Your task to perform on an android device: turn off notifications in google photos Image 0: 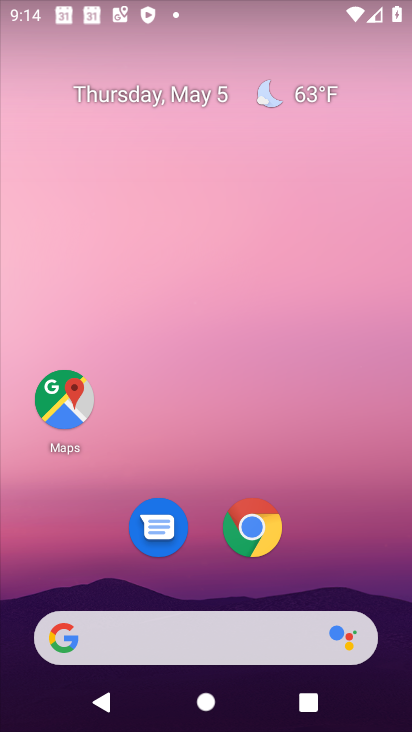
Step 0: drag from (264, 693) to (246, 35)
Your task to perform on an android device: turn off notifications in google photos Image 1: 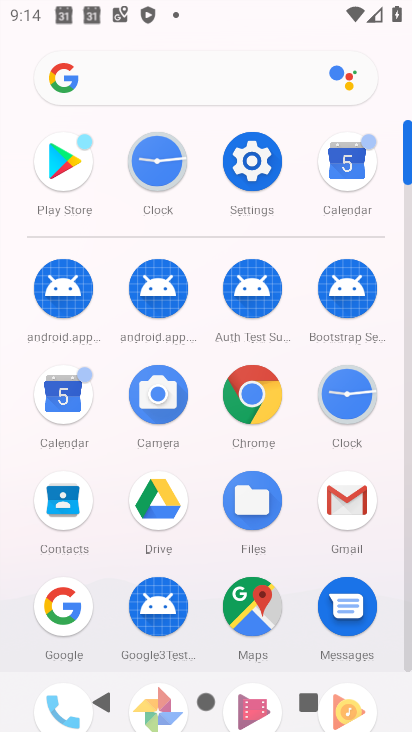
Step 1: drag from (226, 628) to (205, 100)
Your task to perform on an android device: turn off notifications in google photos Image 2: 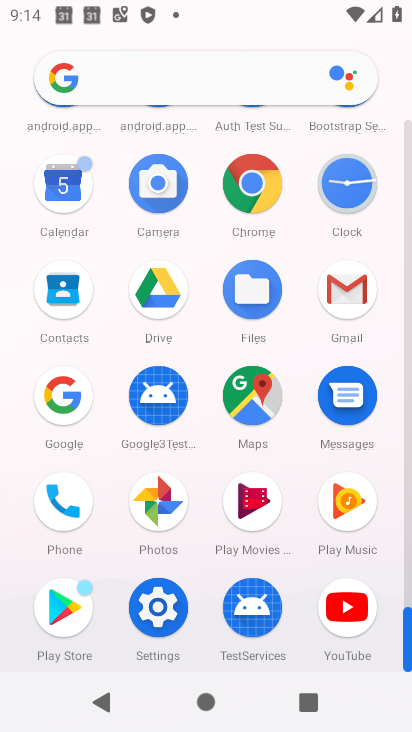
Step 2: click (159, 489)
Your task to perform on an android device: turn off notifications in google photos Image 3: 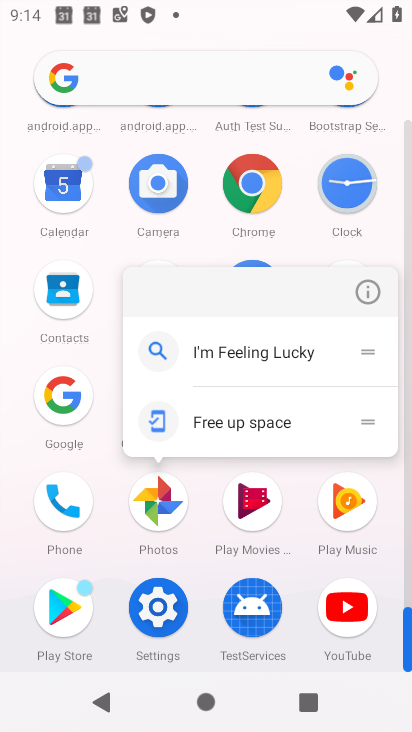
Step 3: click (369, 299)
Your task to perform on an android device: turn off notifications in google photos Image 4: 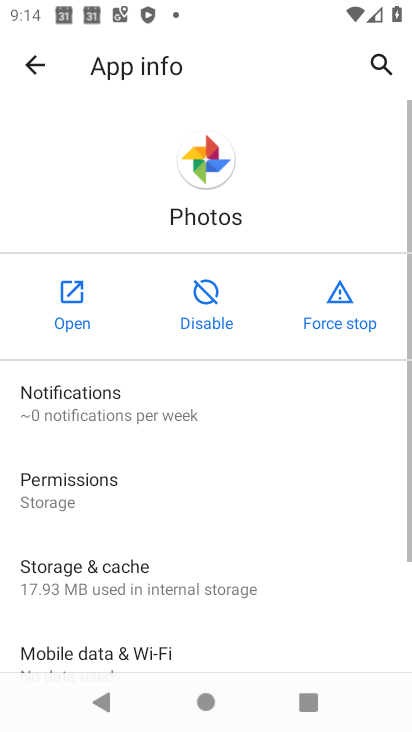
Step 4: click (255, 405)
Your task to perform on an android device: turn off notifications in google photos Image 5: 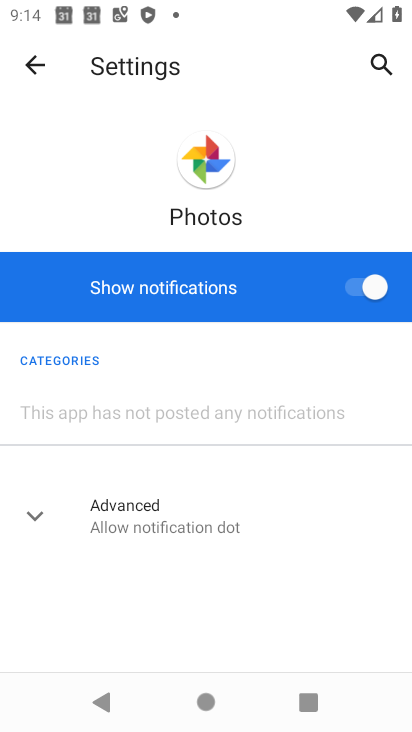
Step 5: click (373, 287)
Your task to perform on an android device: turn off notifications in google photos Image 6: 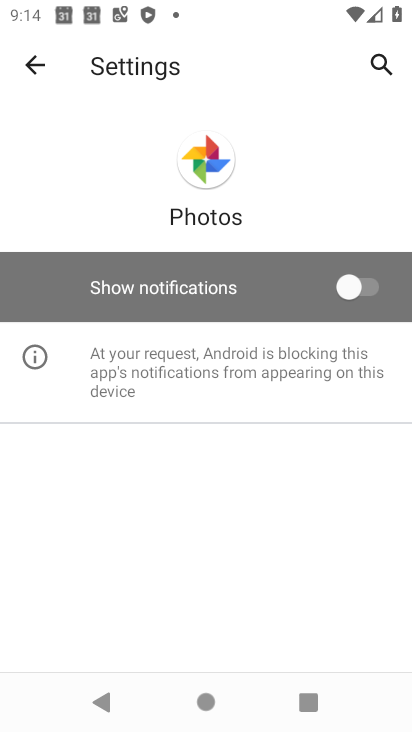
Step 6: task complete